Your task to perform on an android device: turn notification dots on Image 0: 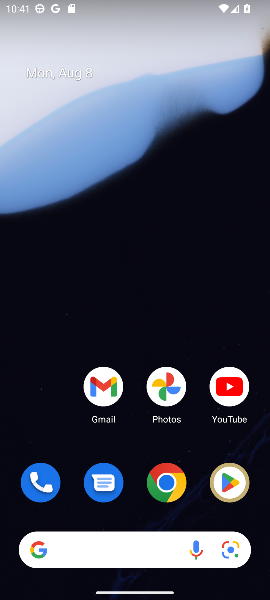
Step 0: drag from (135, 447) to (181, 63)
Your task to perform on an android device: turn notification dots on Image 1: 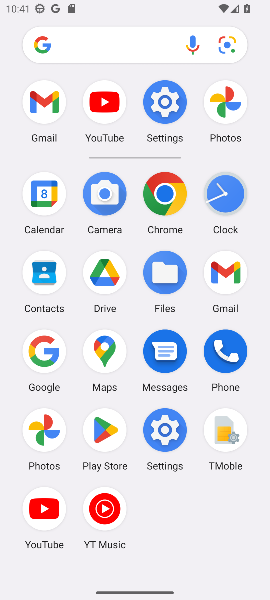
Step 1: click (166, 440)
Your task to perform on an android device: turn notification dots on Image 2: 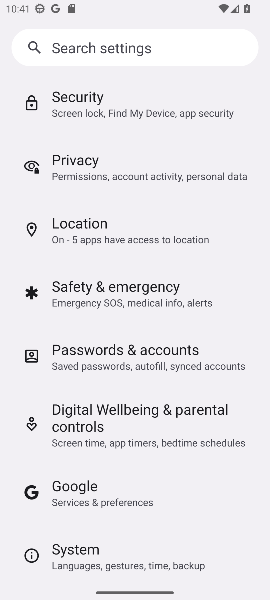
Step 2: drag from (121, 144) to (123, 382)
Your task to perform on an android device: turn notification dots on Image 3: 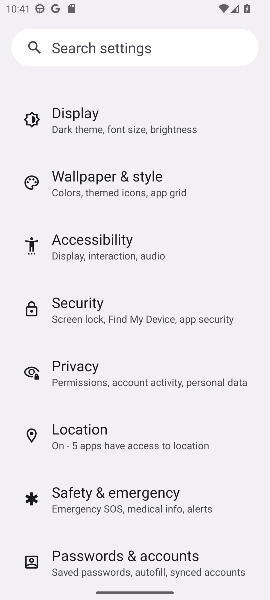
Step 3: drag from (120, 164) to (143, 553)
Your task to perform on an android device: turn notification dots on Image 4: 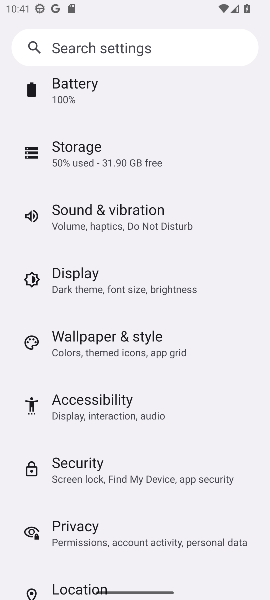
Step 4: drag from (121, 159) to (138, 579)
Your task to perform on an android device: turn notification dots on Image 5: 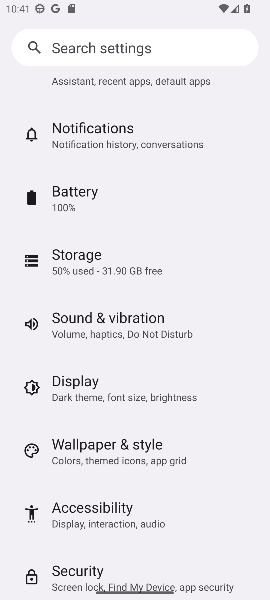
Step 5: click (113, 149)
Your task to perform on an android device: turn notification dots on Image 6: 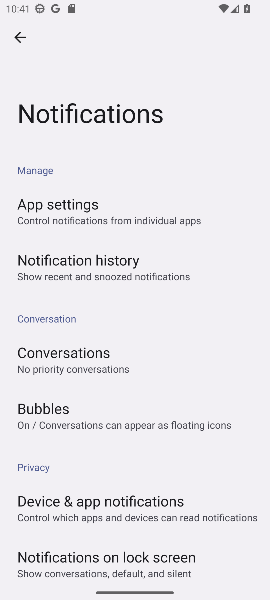
Step 6: task complete